Your task to perform on an android device: turn on data saver in the chrome app Image 0: 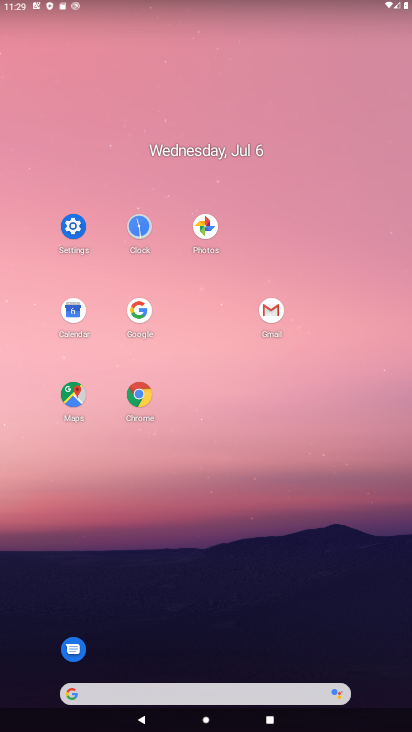
Step 0: click (145, 392)
Your task to perform on an android device: turn on data saver in the chrome app Image 1: 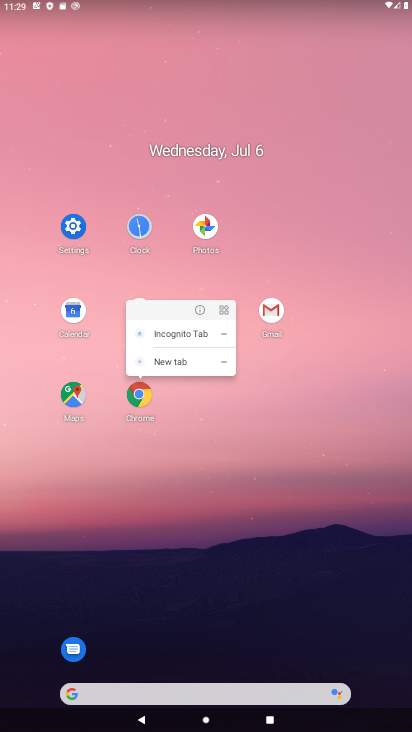
Step 1: click (145, 397)
Your task to perform on an android device: turn on data saver in the chrome app Image 2: 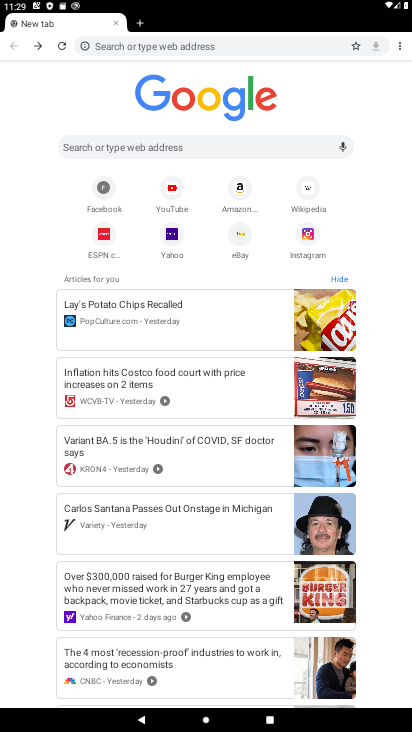
Step 2: click (397, 47)
Your task to perform on an android device: turn on data saver in the chrome app Image 3: 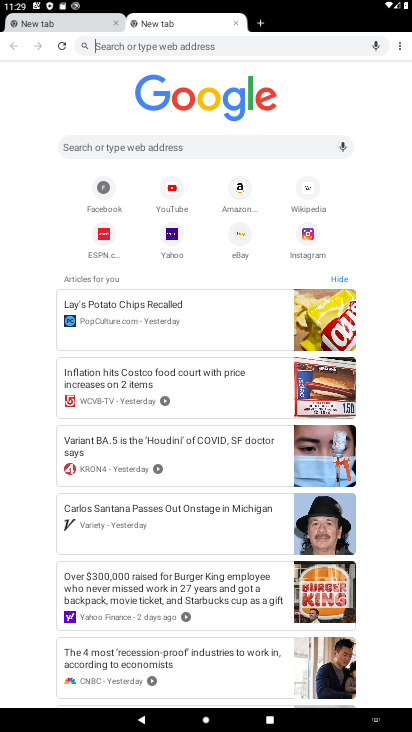
Step 3: click (397, 45)
Your task to perform on an android device: turn on data saver in the chrome app Image 4: 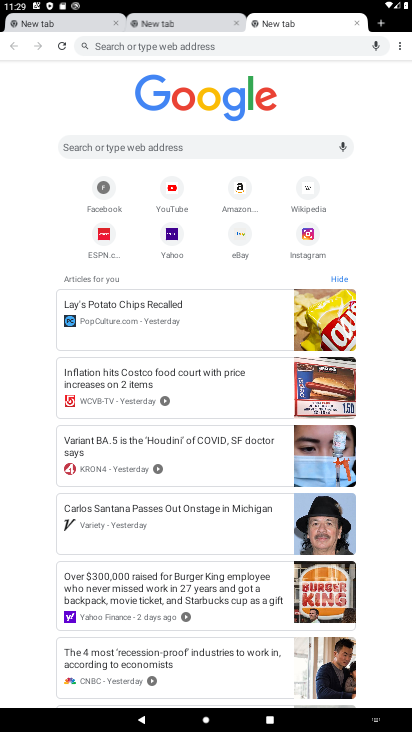
Step 4: click (392, 48)
Your task to perform on an android device: turn on data saver in the chrome app Image 5: 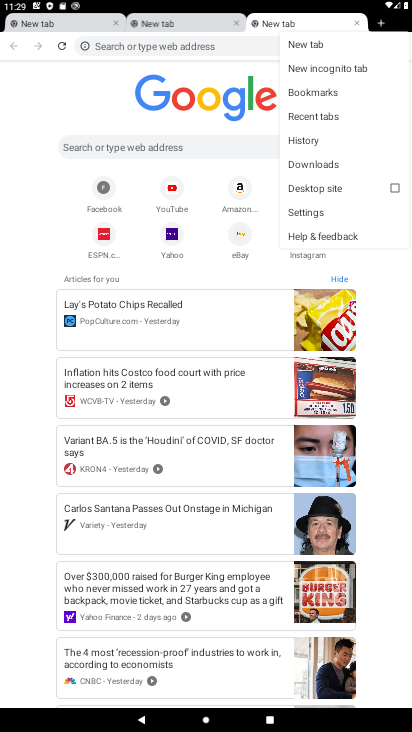
Step 5: click (314, 214)
Your task to perform on an android device: turn on data saver in the chrome app Image 6: 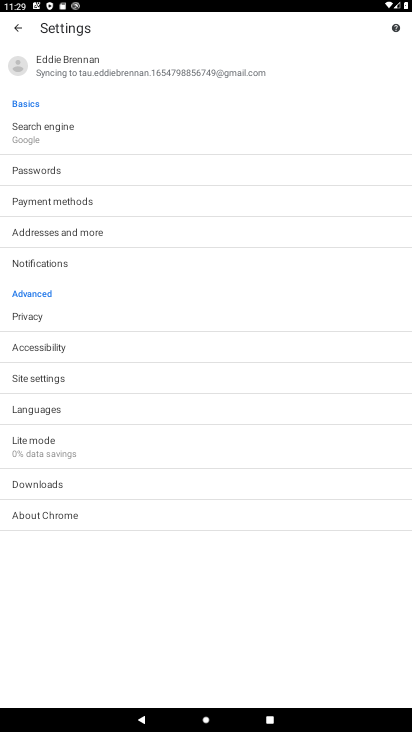
Step 6: click (168, 445)
Your task to perform on an android device: turn on data saver in the chrome app Image 7: 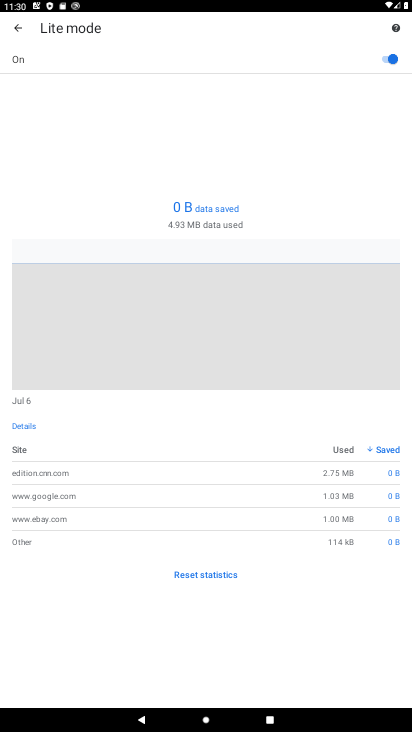
Step 7: task complete